Your task to perform on an android device: turn notification dots off Image 0: 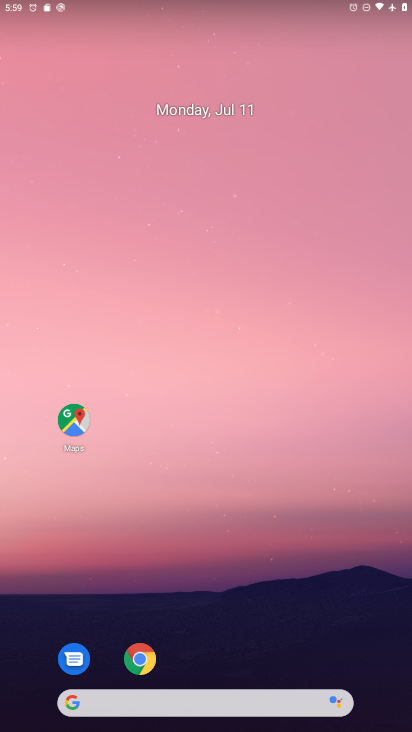
Step 0: drag from (380, 656) to (333, 63)
Your task to perform on an android device: turn notification dots off Image 1: 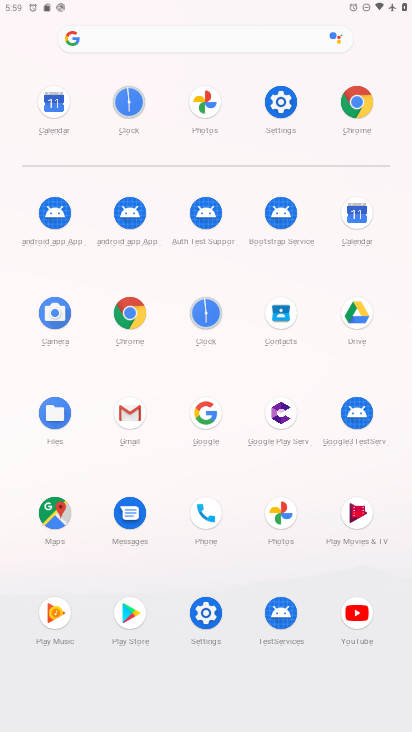
Step 1: click (207, 615)
Your task to perform on an android device: turn notification dots off Image 2: 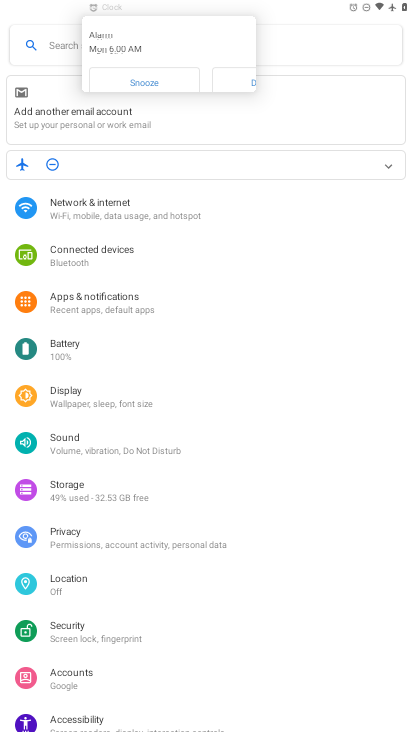
Step 2: click (97, 293)
Your task to perform on an android device: turn notification dots off Image 3: 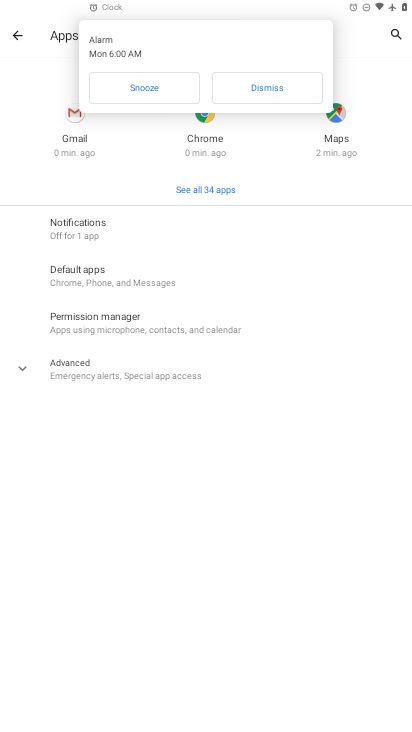
Step 3: click (78, 223)
Your task to perform on an android device: turn notification dots off Image 4: 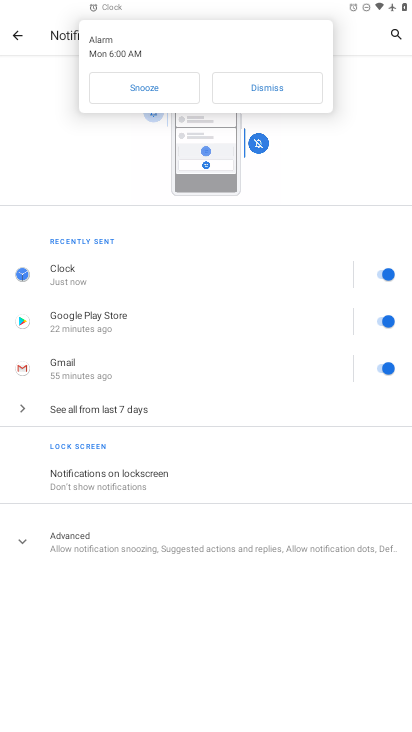
Step 4: click (49, 542)
Your task to perform on an android device: turn notification dots off Image 5: 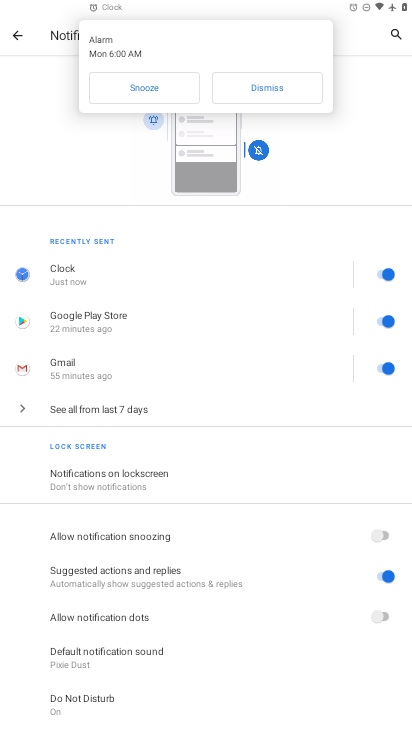
Step 5: task complete